Your task to perform on an android device: What's the weather? Image 0: 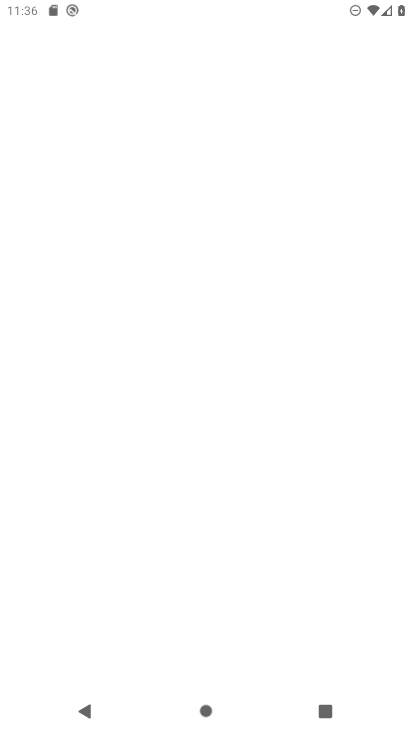
Step 0: drag from (220, 463) to (190, 114)
Your task to perform on an android device: What's the weather? Image 1: 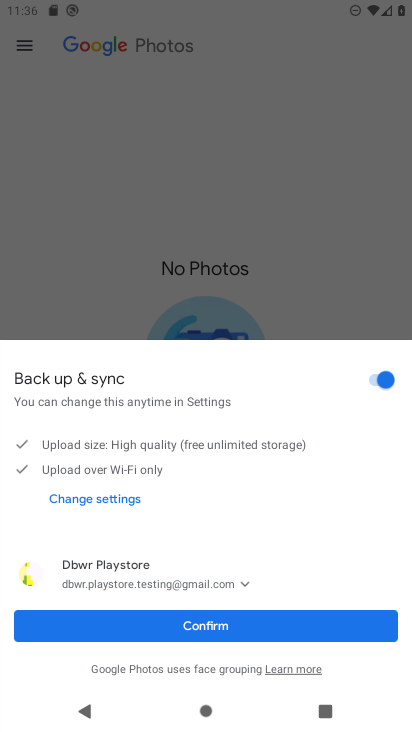
Step 1: press back button
Your task to perform on an android device: What's the weather? Image 2: 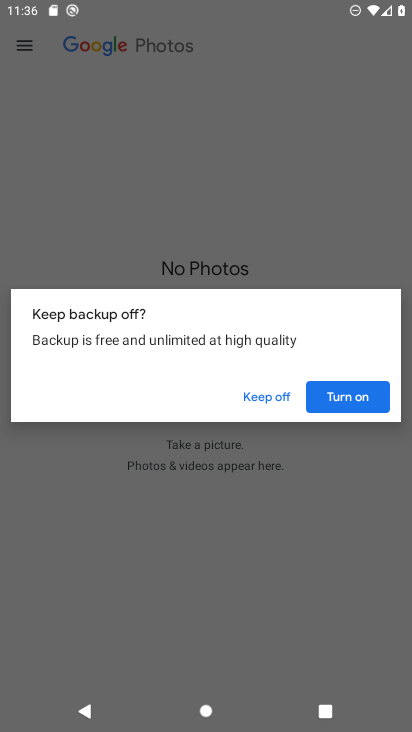
Step 2: press back button
Your task to perform on an android device: What's the weather? Image 3: 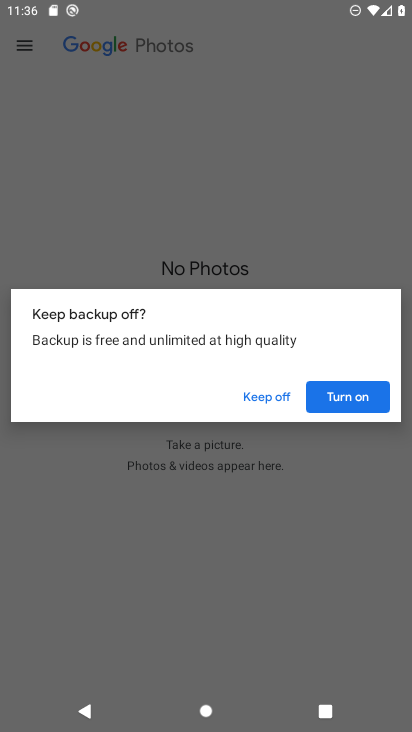
Step 3: press back button
Your task to perform on an android device: What's the weather? Image 4: 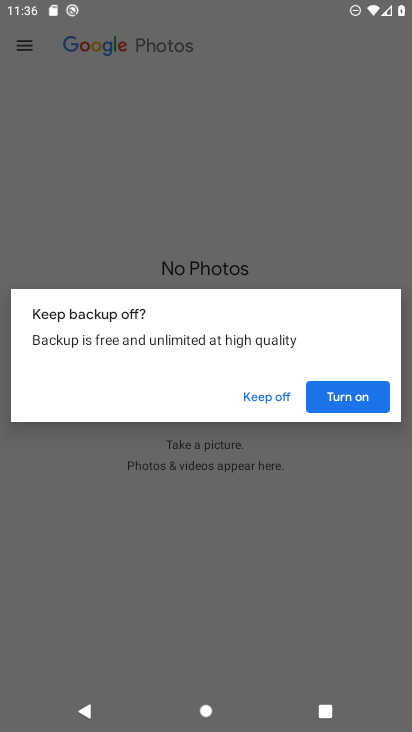
Step 4: press home button
Your task to perform on an android device: What's the weather? Image 5: 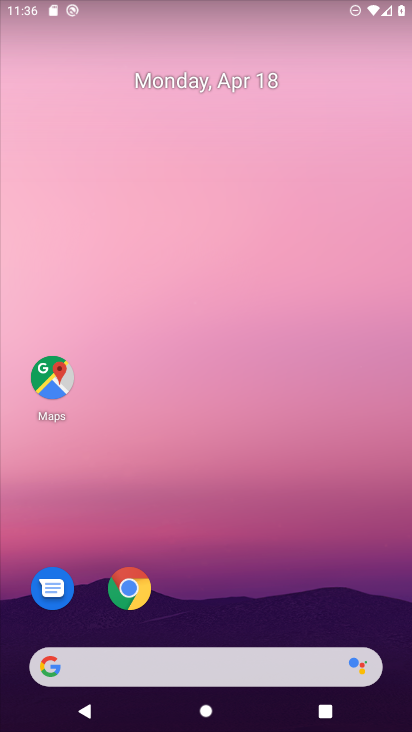
Step 5: drag from (276, 522) to (181, 23)
Your task to perform on an android device: What's the weather? Image 6: 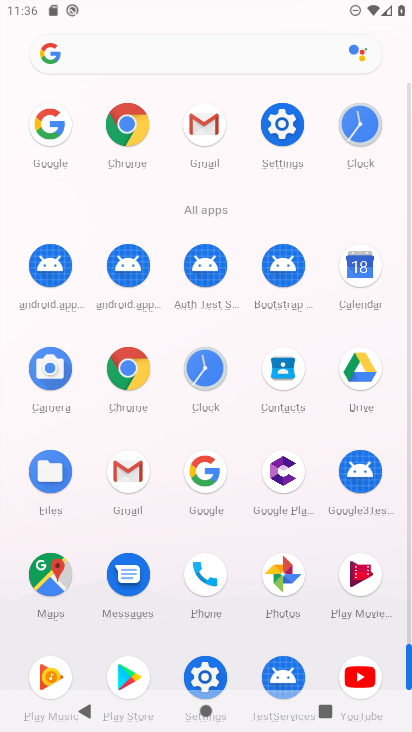
Step 6: drag from (13, 491) to (1, 276)
Your task to perform on an android device: What's the weather? Image 7: 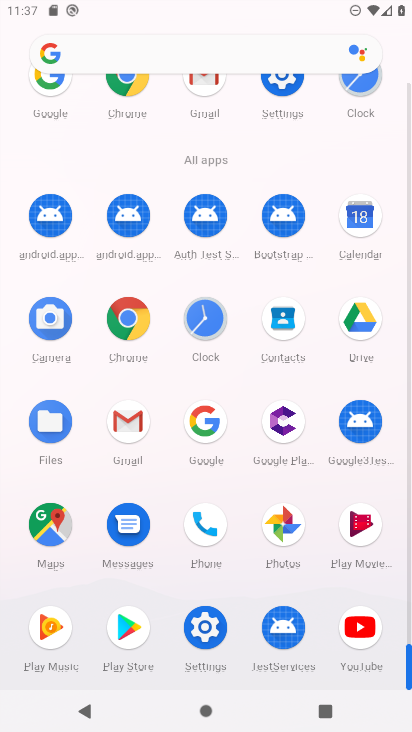
Step 7: click (97, 49)
Your task to perform on an android device: What's the weather? Image 8: 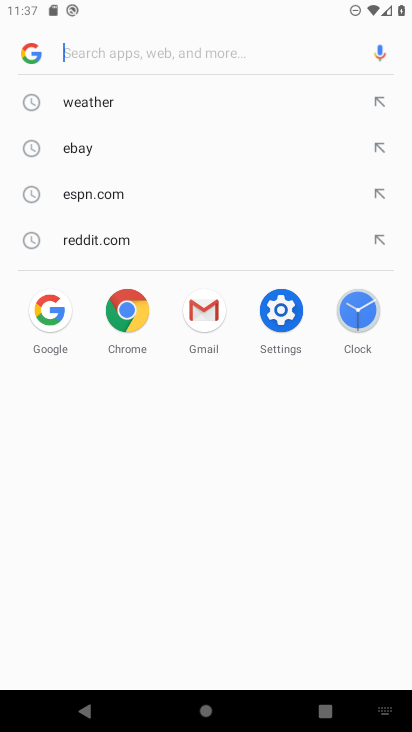
Step 8: click (78, 98)
Your task to perform on an android device: What's the weather? Image 9: 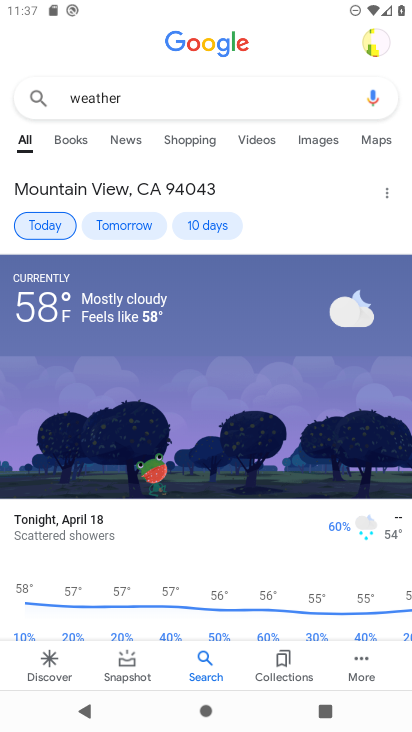
Step 9: task complete